Your task to perform on an android device: all mails in gmail Image 0: 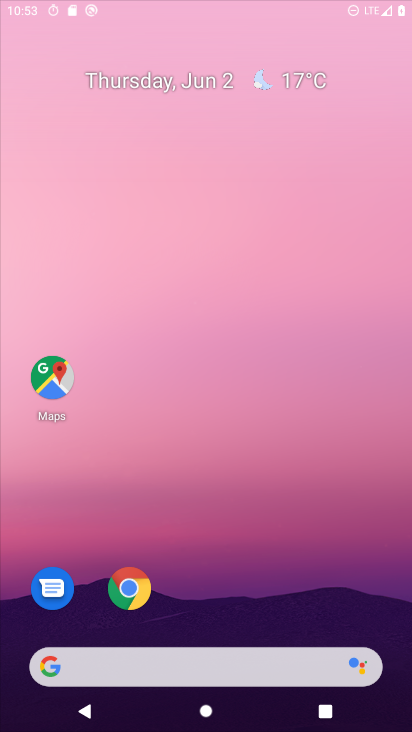
Step 0: click (294, 136)
Your task to perform on an android device: all mails in gmail Image 1: 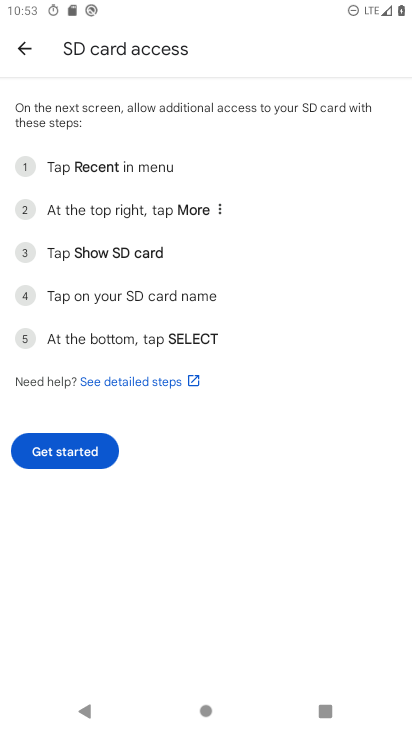
Step 1: press home button
Your task to perform on an android device: all mails in gmail Image 2: 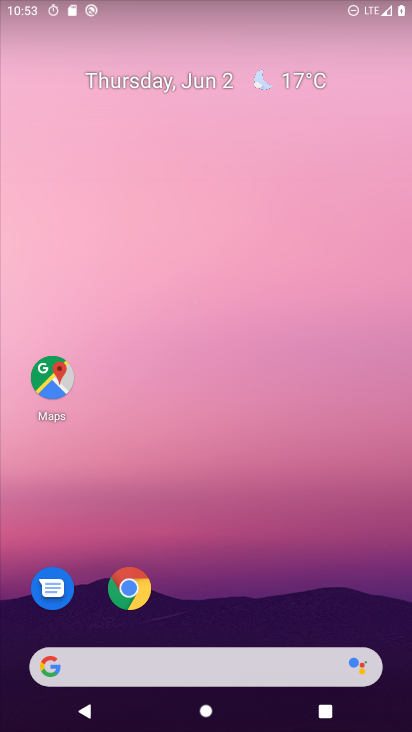
Step 2: drag from (216, 642) to (282, 143)
Your task to perform on an android device: all mails in gmail Image 3: 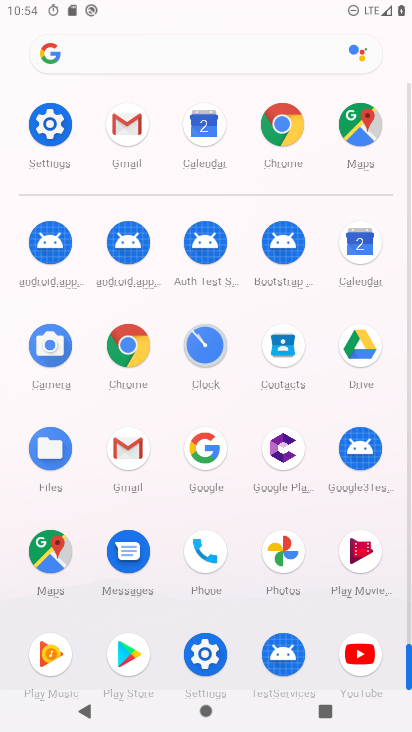
Step 3: click (140, 454)
Your task to perform on an android device: all mails in gmail Image 4: 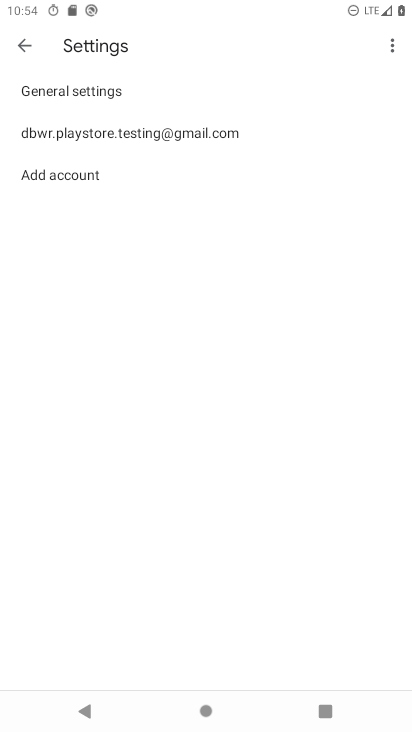
Step 4: click (28, 47)
Your task to perform on an android device: all mails in gmail Image 5: 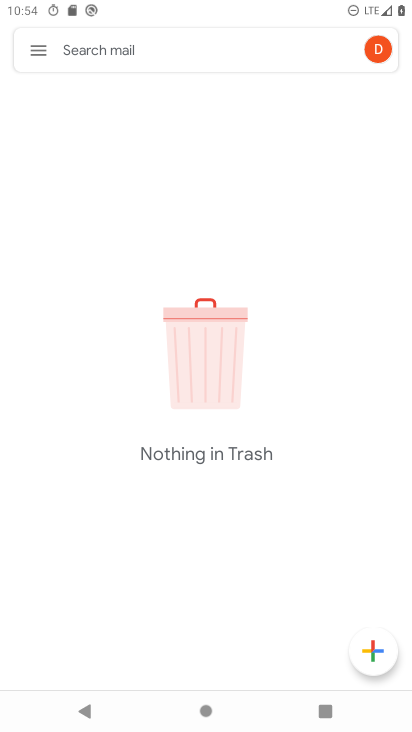
Step 5: click (36, 55)
Your task to perform on an android device: all mails in gmail Image 6: 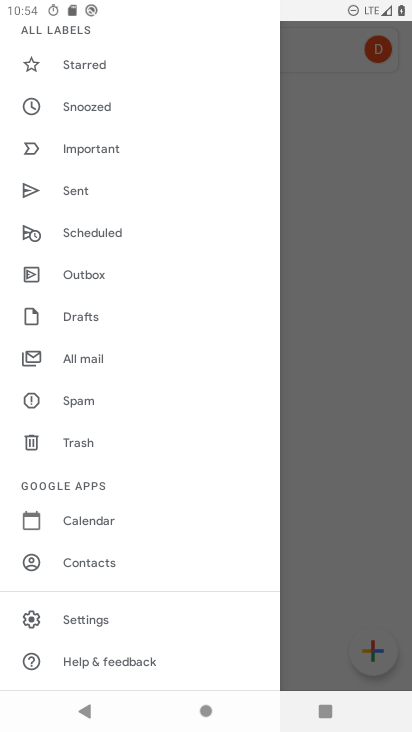
Step 6: click (106, 352)
Your task to perform on an android device: all mails in gmail Image 7: 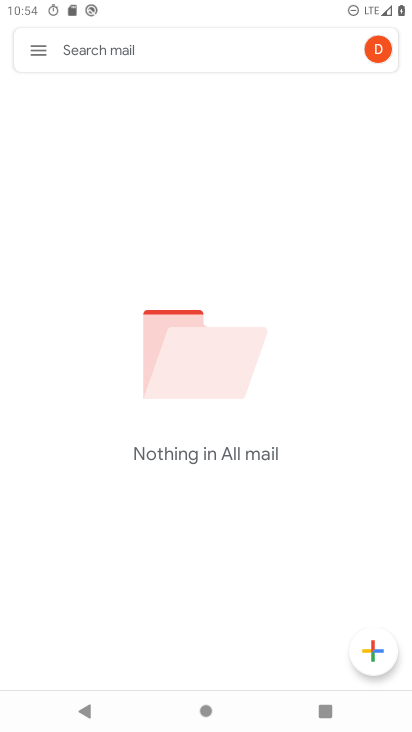
Step 7: task complete